Your task to perform on an android device: Find coffee shops on Maps Image 0: 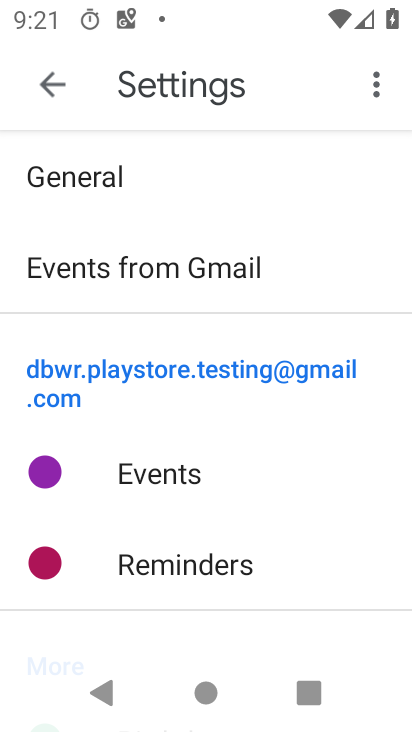
Step 0: press home button
Your task to perform on an android device: Find coffee shops on Maps Image 1: 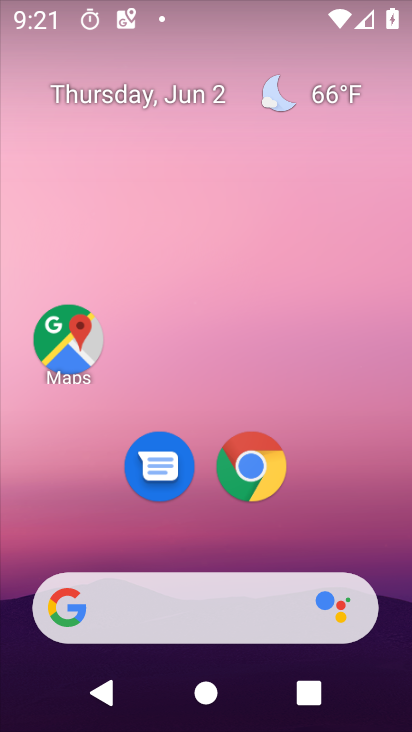
Step 1: click (51, 332)
Your task to perform on an android device: Find coffee shops on Maps Image 2: 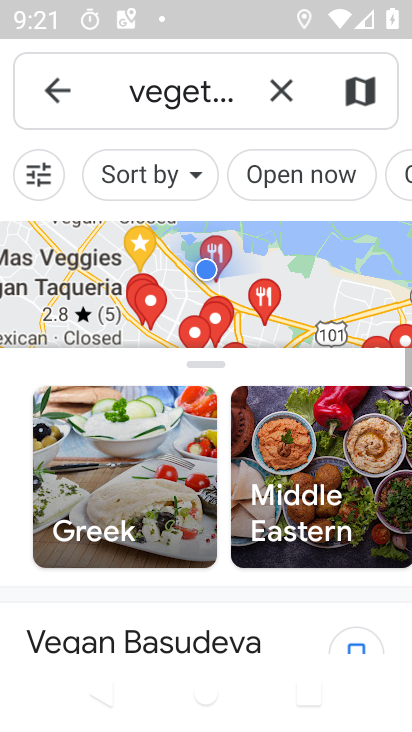
Step 2: click (284, 90)
Your task to perform on an android device: Find coffee shops on Maps Image 3: 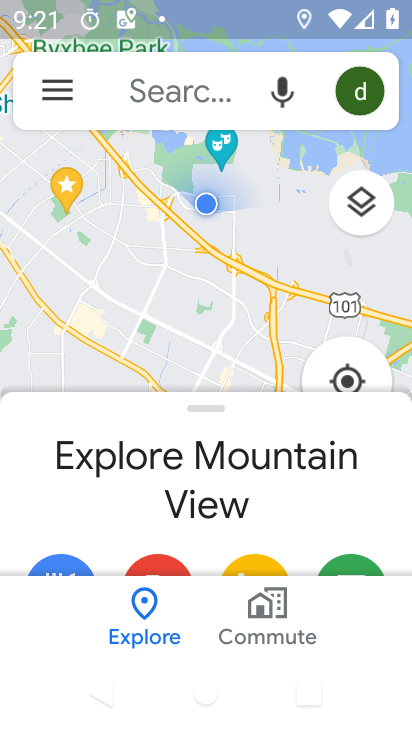
Step 3: click (144, 91)
Your task to perform on an android device: Find coffee shops on Maps Image 4: 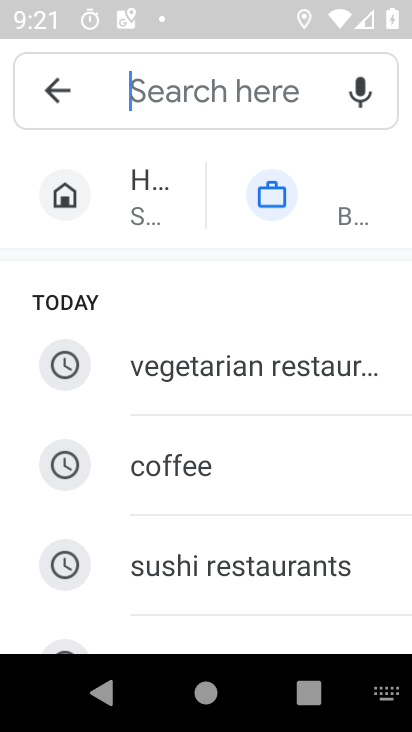
Step 4: click (147, 464)
Your task to perform on an android device: Find coffee shops on Maps Image 5: 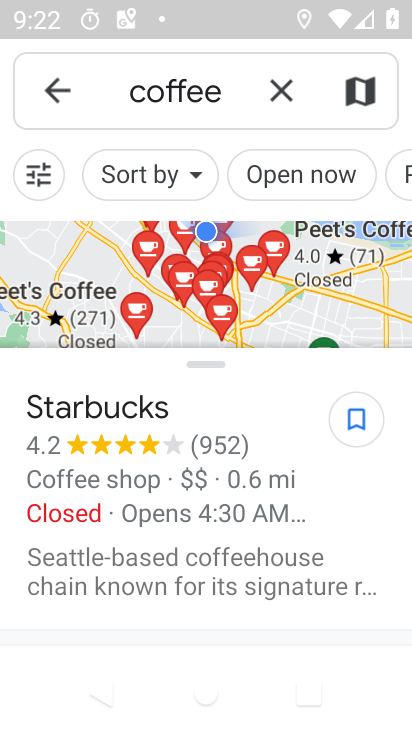
Step 5: task complete